Your task to perform on an android device: Open privacy settings Image 0: 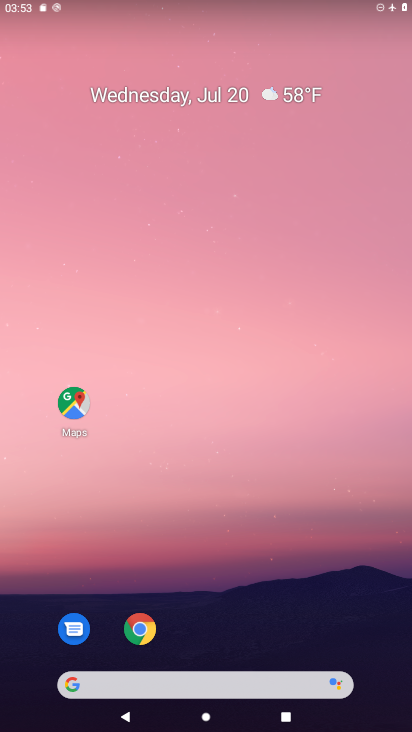
Step 0: drag from (339, 593) to (279, 54)
Your task to perform on an android device: Open privacy settings Image 1: 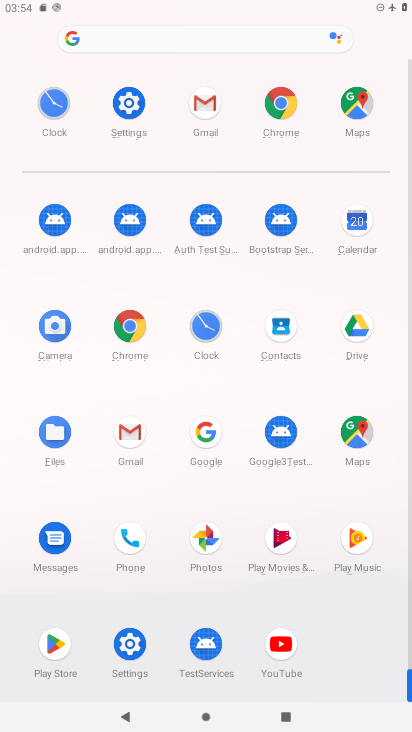
Step 1: click (135, 639)
Your task to perform on an android device: Open privacy settings Image 2: 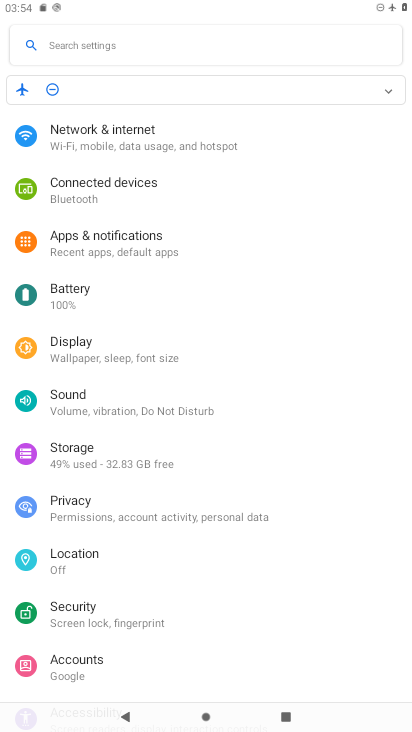
Step 2: click (54, 512)
Your task to perform on an android device: Open privacy settings Image 3: 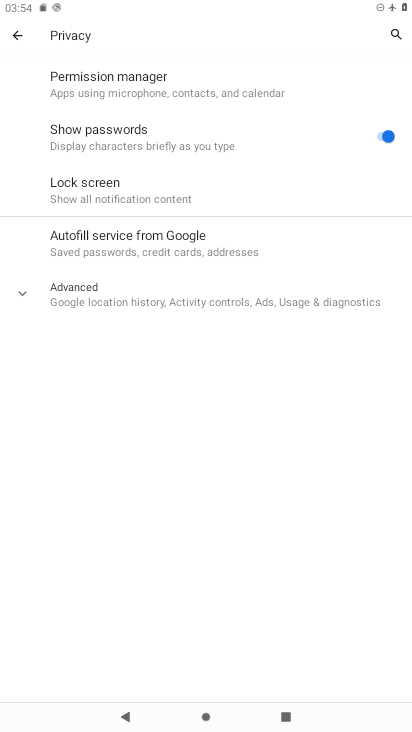
Step 3: task complete